Your task to perform on an android device: turn off picture-in-picture Image 0: 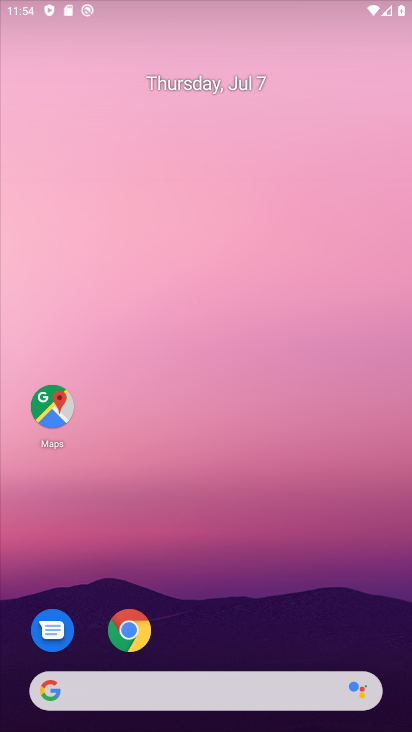
Step 0: drag from (404, 692) to (315, 65)
Your task to perform on an android device: turn off picture-in-picture Image 1: 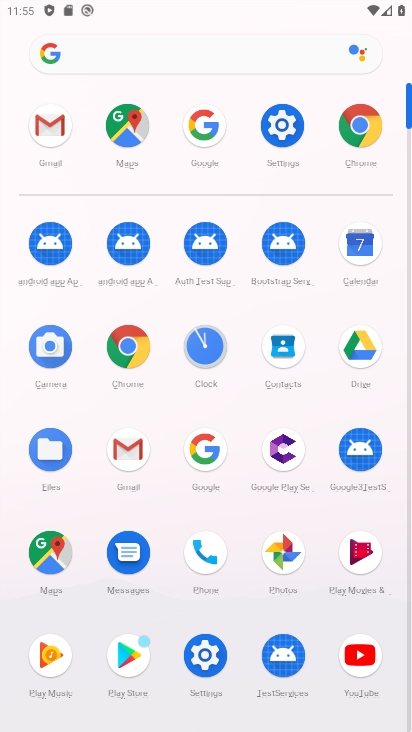
Step 1: click (364, 119)
Your task to perform on an android device: turn off picture-in-picture Image 2: 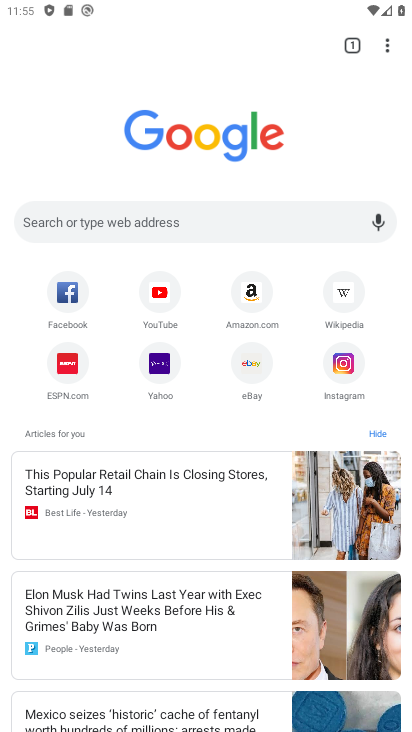
Step 2: task complete